Your task to perform on an android device: turn on airplane mode Image 0: 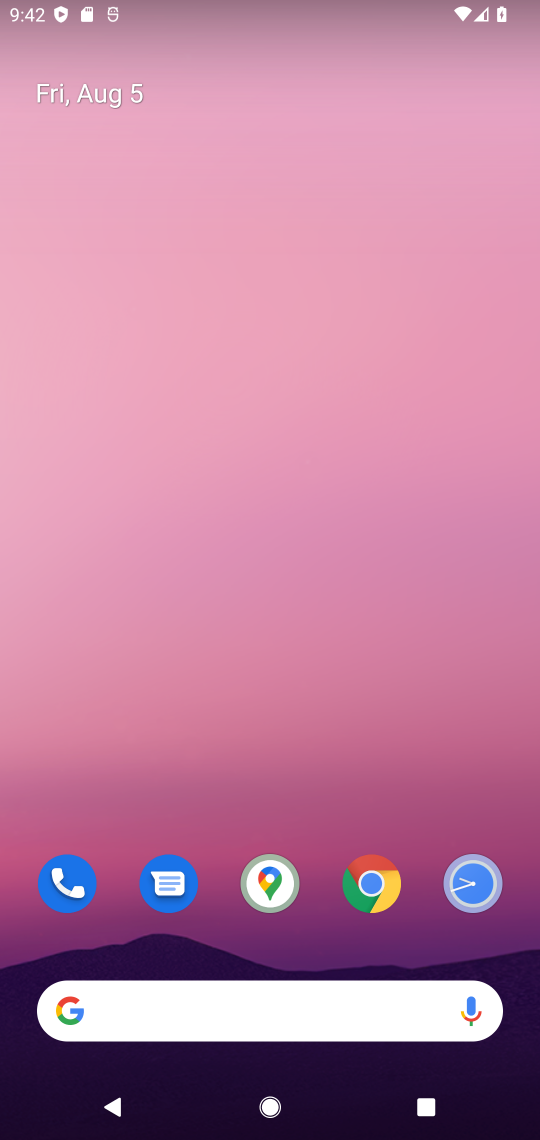
Step 0: drag from (465, 11) to (308, 1012)
Your task to perform on an android device: turn on airplane mode Image 1: 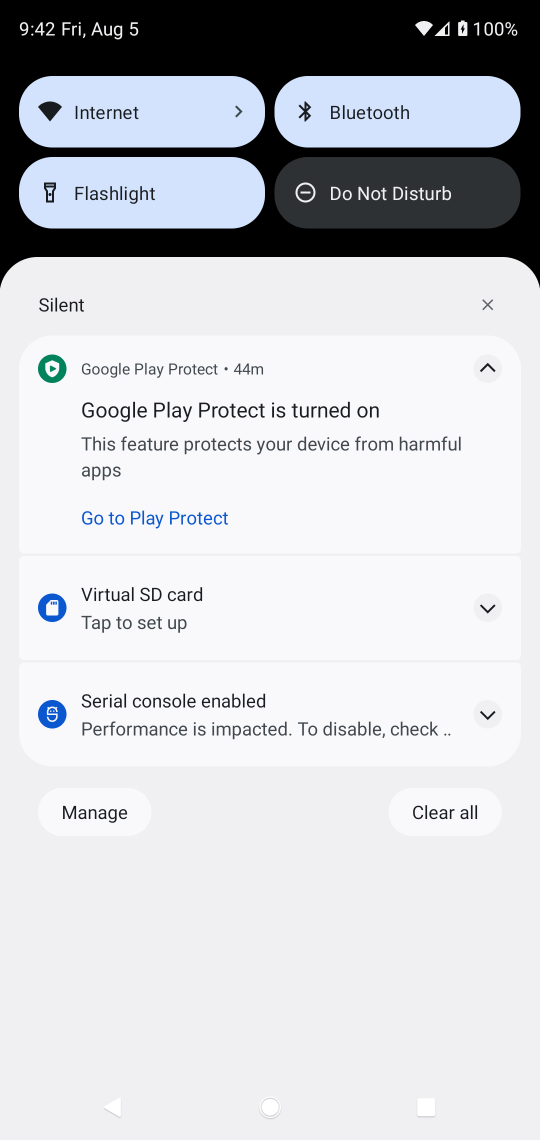
Step 1: drag from (281, 345) to (225, 1111)
Your task to perform on an android device: turn on airplane mode Image 2: 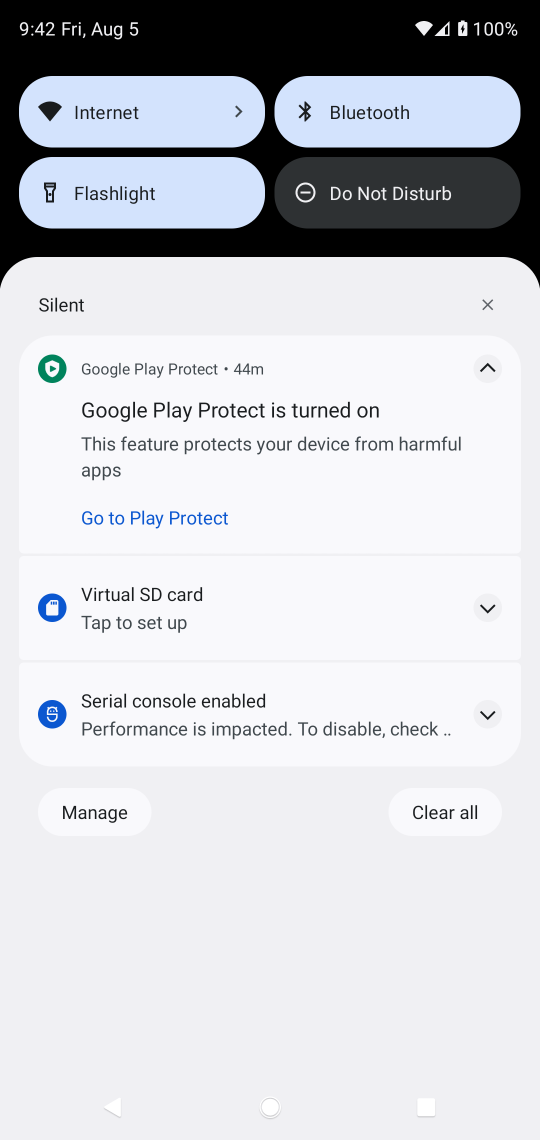
Step 2: drag from (258, 265) to (222, 1083)
Your task to perform on an android device: turn on airplane mode Image 3: 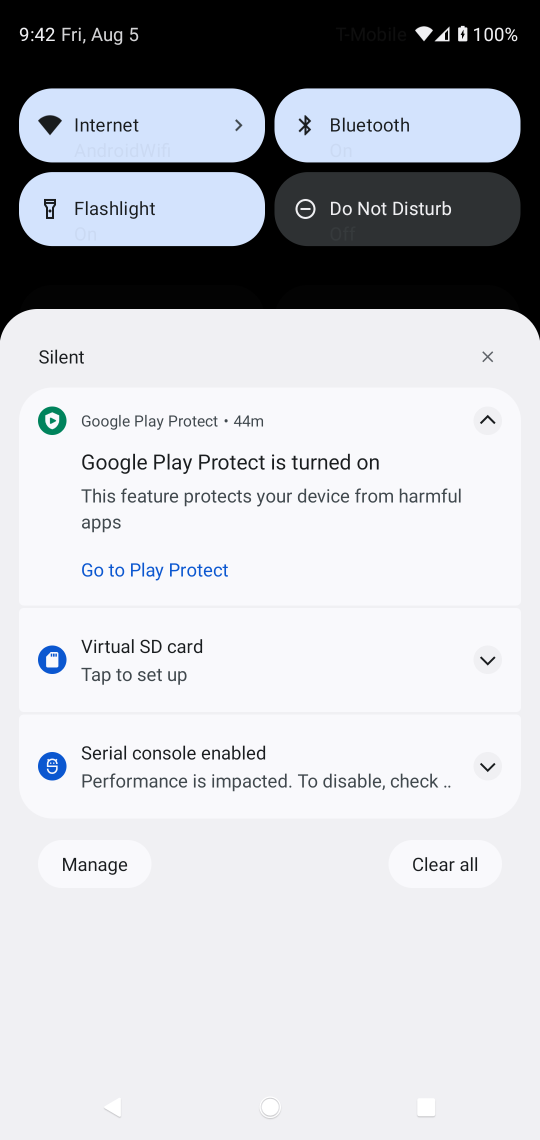
Step 3: click (368, 476)
Your task to perform on an android device: turn on airplane mode Image 4: 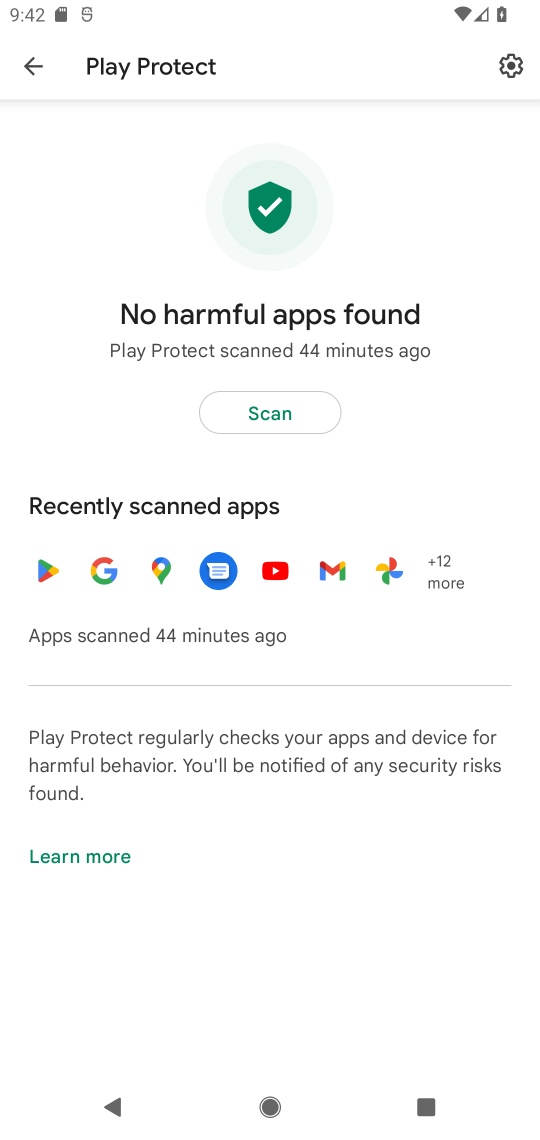
Step 4: drag from (282, 238) to (272, 1099)
Your task to perform on an android device: turn on airplane mode Image 5: 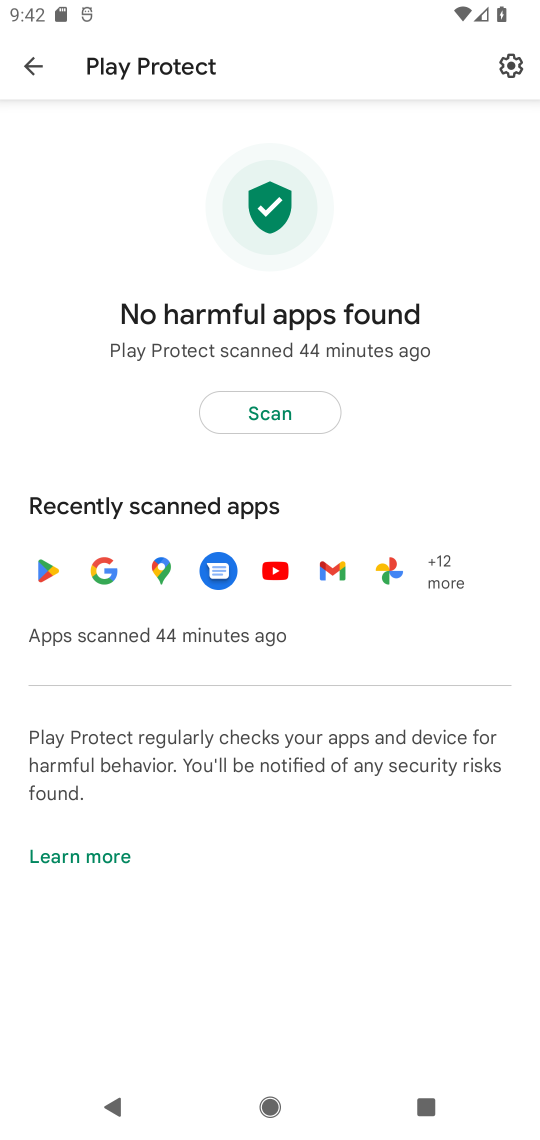
Step 5: drag from (465, 22) to (289, 984)
Your task to perform on an android device: turn on airplane mode Image 6: 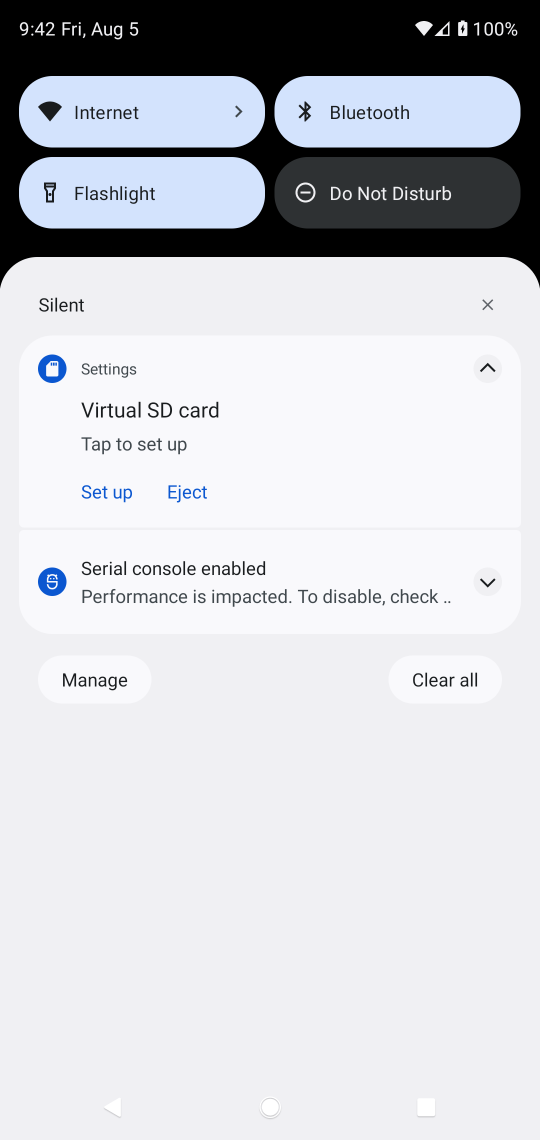
Step 6: drag from (306, 267) to (264, 1073)
Your task to perform on an android device: turn on airplane mode Image 7: 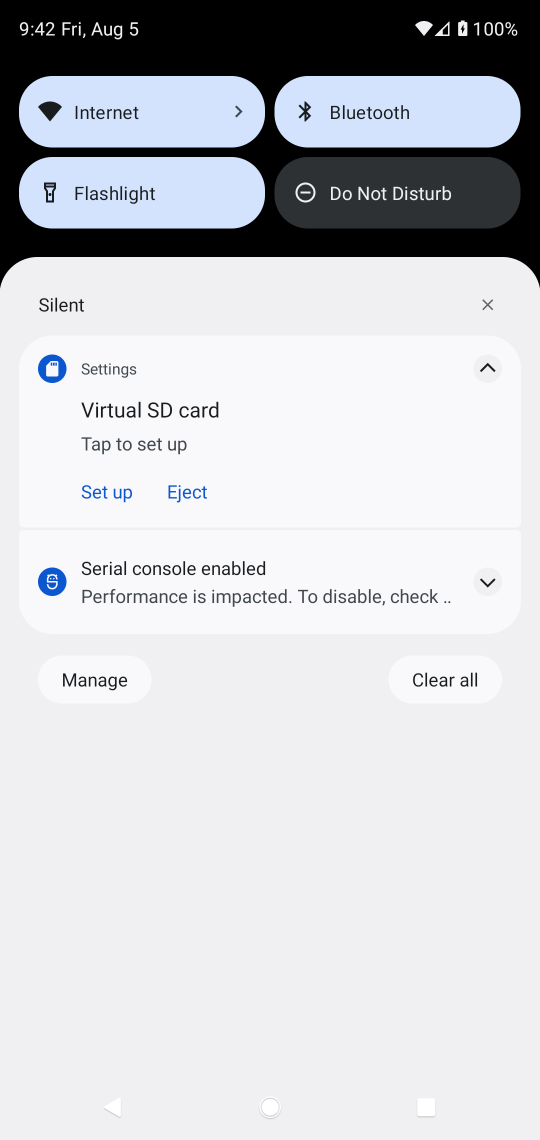
Step 7: drag from (261, 211) to (523, 441)
Your task to perform on an android device: turn on airplane mode Image 8: 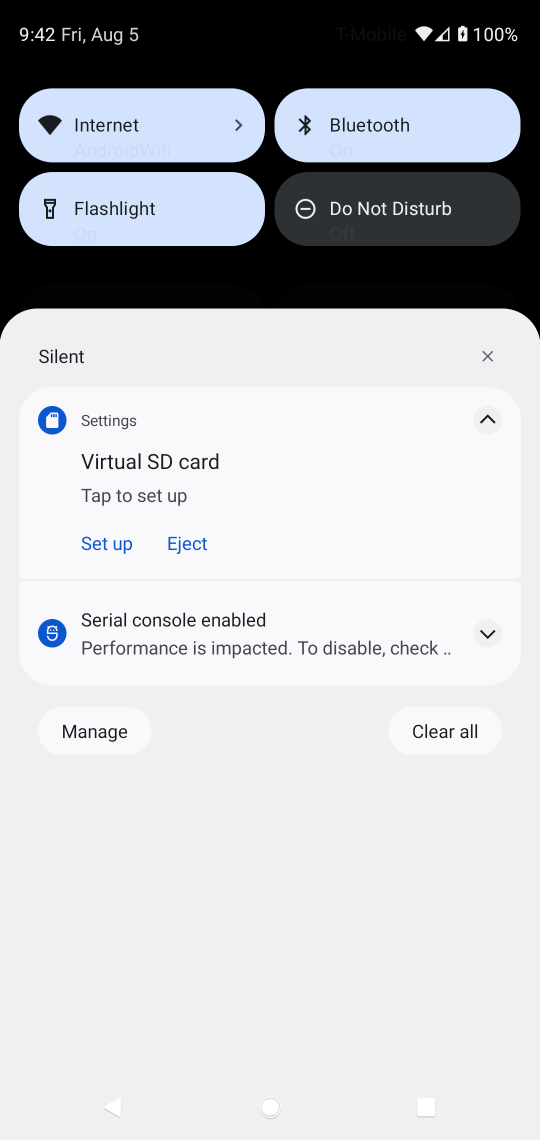
Step 8: click (369, 456)
Your task to perform on an android device: turn on airplane mode Image 9: 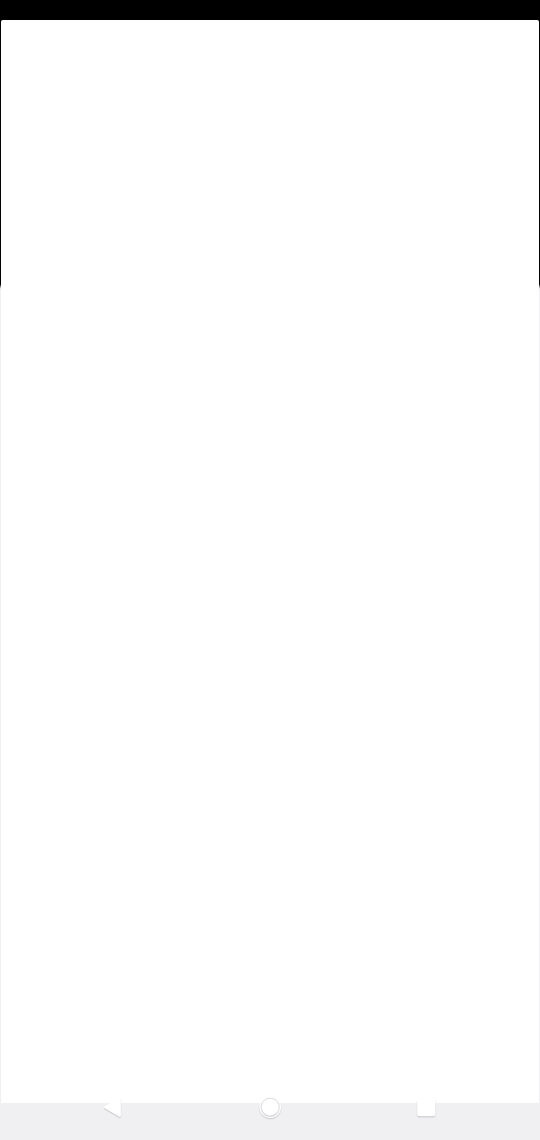
Step 9: task complete